Your task to perform on an android device: Open Google Image 0: 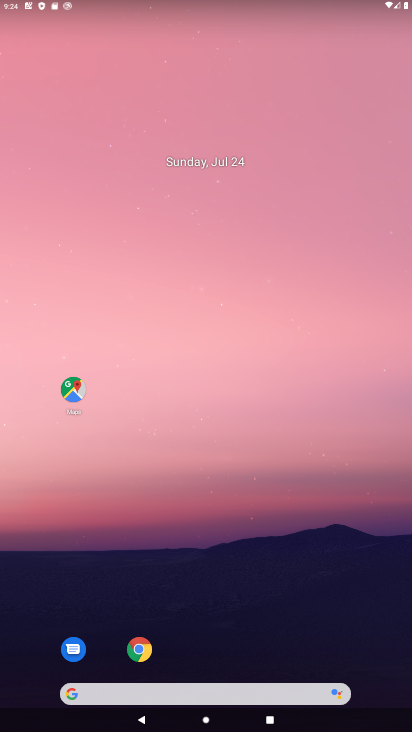
Step 0: click (252, 699)
Your task to perform on an android device: Open Google Image 1: 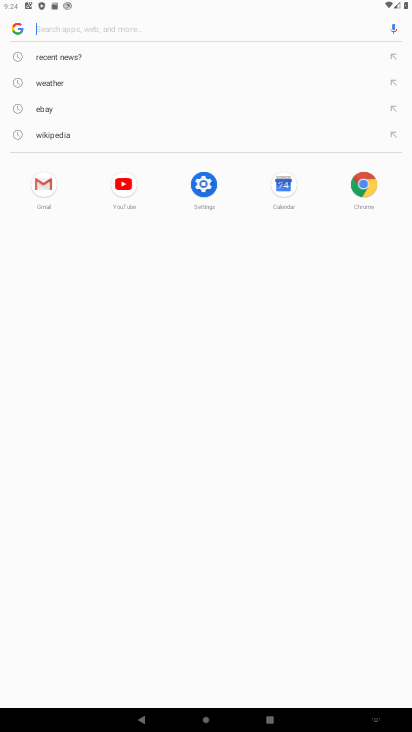
Step 1: task complete